Your task to perform on an android device: Go to Google maps Image 0: 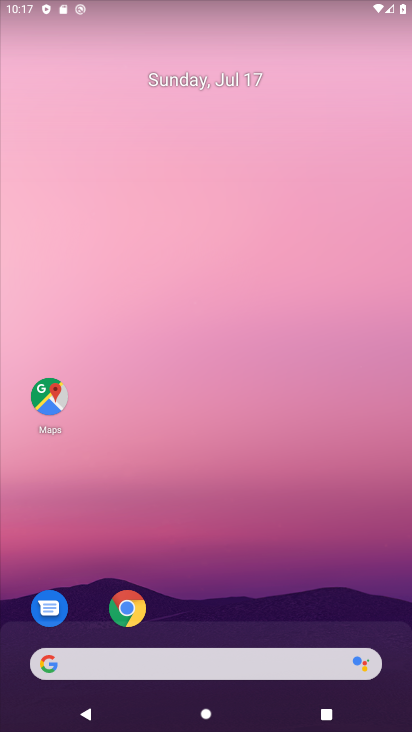
Step 0: click (123, 451)
Your task to perform on an android device: Go to Google maps Image 1: 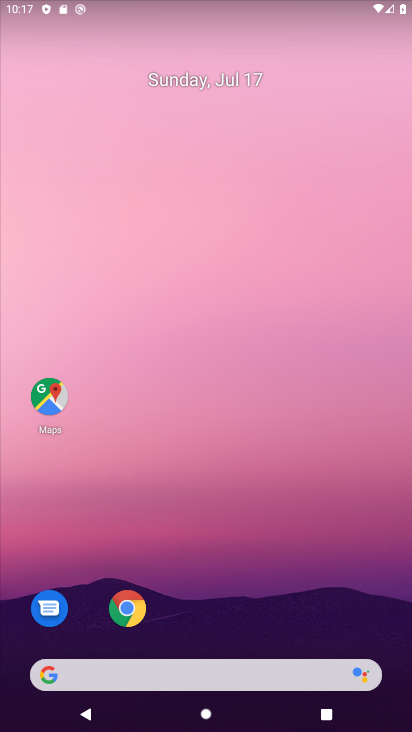
Step 1: click (30, 410)
Your task to perform on an android device: Go to Google maps Image 2: 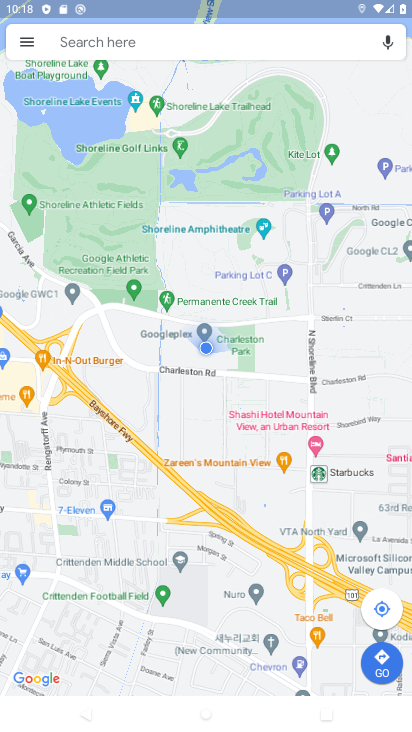
Step 2: task complete